Your task to perform on an android device: Open location settings Image 0: 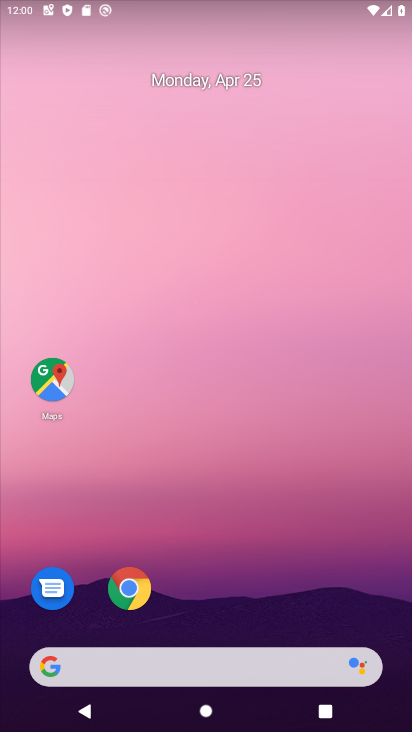
Step 0: drag from (231, 614) to (315, 108)
Your task to perform on an android device: Open location settings Image 1: 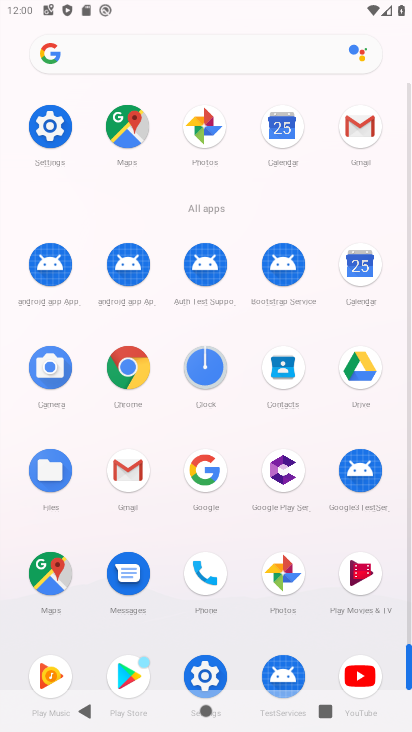
Step 1: drag from (196, 628) to (255, 356)
Your task to perform on an android device: Open location settings Image 2: 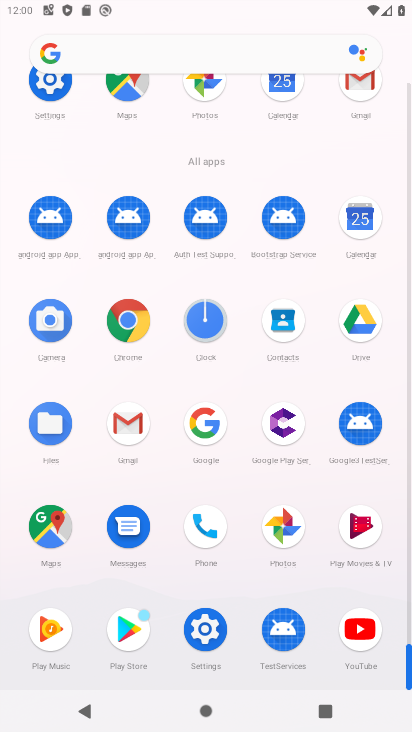
Step 2: click (220, 633)
Your task to perform on an android device: Open location settings Image 3: 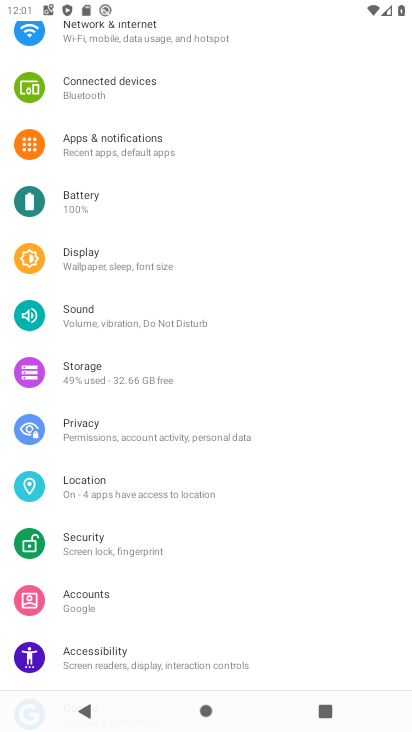
Step 3: drag from (168, 233) to (201, 223)
Your task to perform on an android device: Open location settings Image 4: 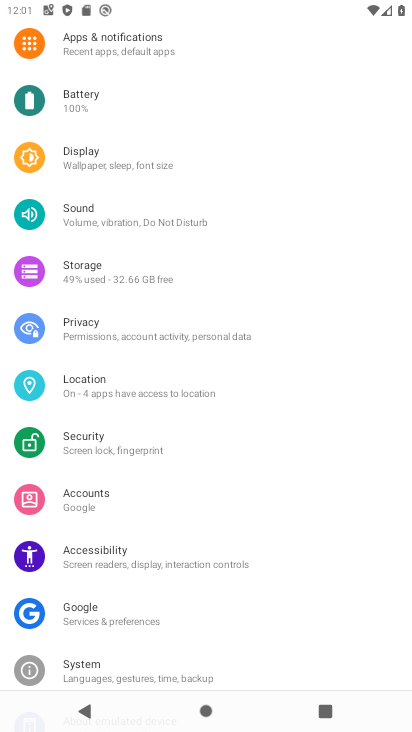
Step 4: click (107, 390)
Your task to perform on an android device: Open location settings Image 5: 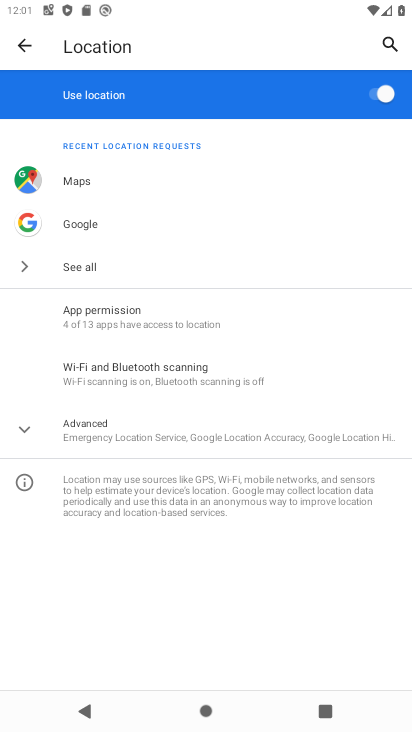
Step 5: task complete